Your task to perform on an android device: read, delete, or share a saved page in the chrome app Image 0: 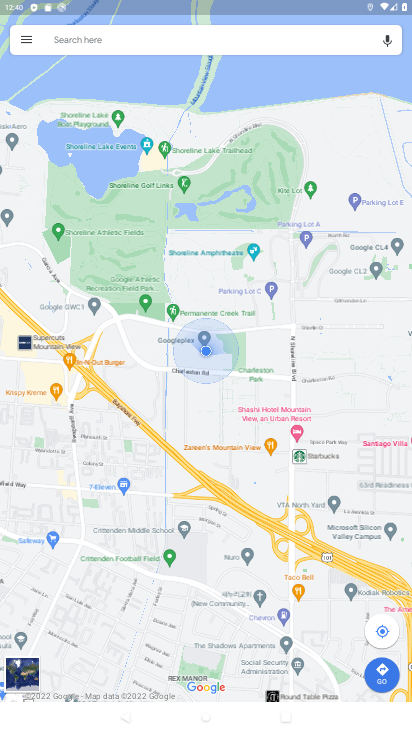
Step 0: press home button
Your task to perform on an android device: read, delete, or share a saved page in the chrome app Image 1: 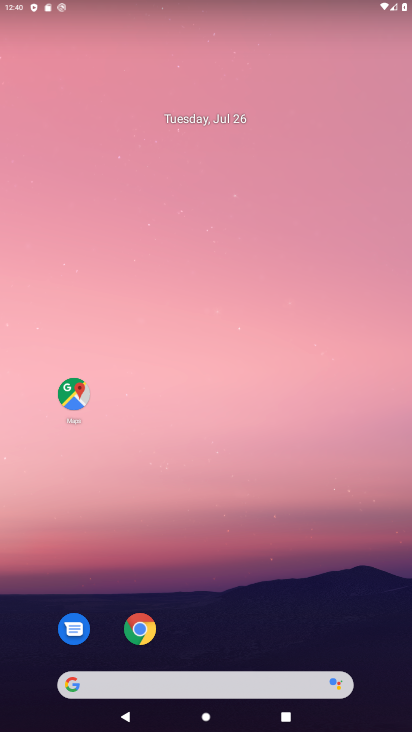
Step 1: click (151, 633)
Your task to perform on an android device: read, delete, or share a saved page in the chrome app Image 2: 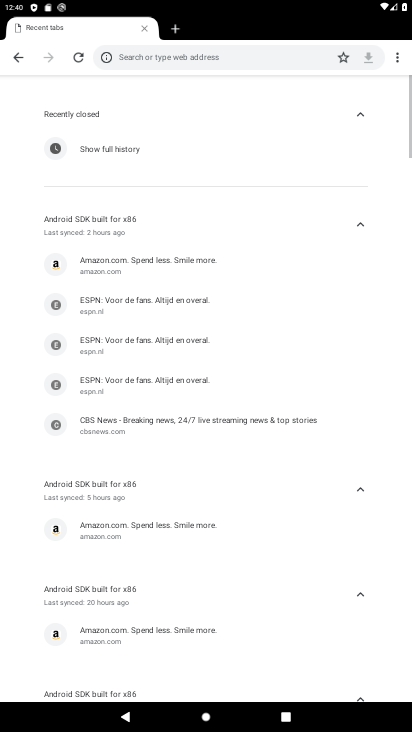
Step 2: click (393, 56)
Your task to perform on an android device: read, delete, or share a saved page in the chrome app Image 3: 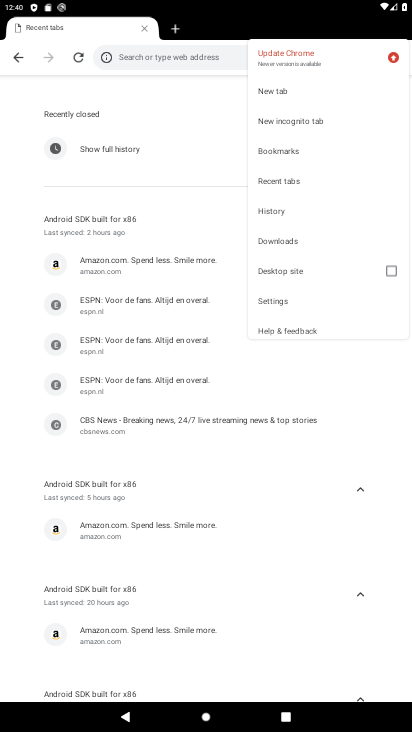
Step 3: click (287, 178)
Your task to perform on an android device: read, delete, or share a saved page in the chrome app Image 4: 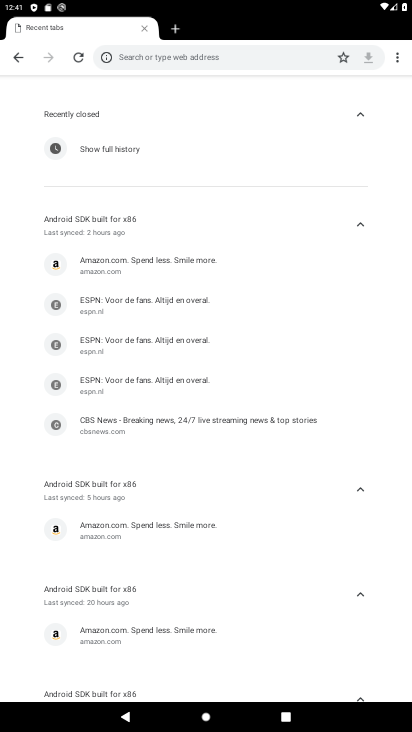
Step 4: task complete